Your task to perform on an android device: Show me recent news Image 0: 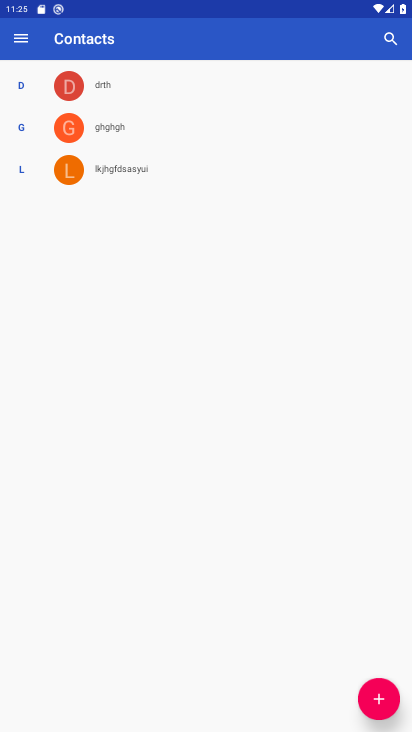
Step 0: press home button
Your task to perform on an android device: Show me recent news Image 1: 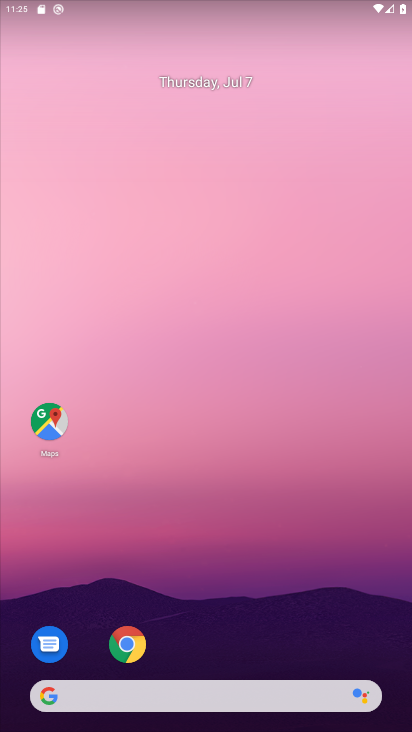
Step 1: click (105, 694)
Your task to perform on an android device: Show me recent news Image 2: 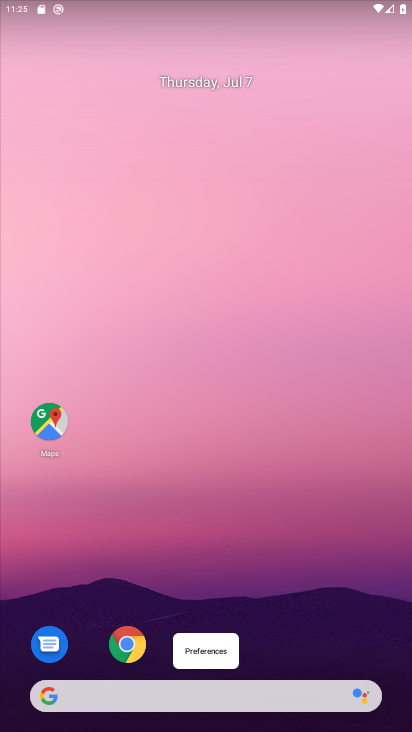
Step 2: click (89, 696)
Your task to perform on an android device: Show me recent news Image 3: 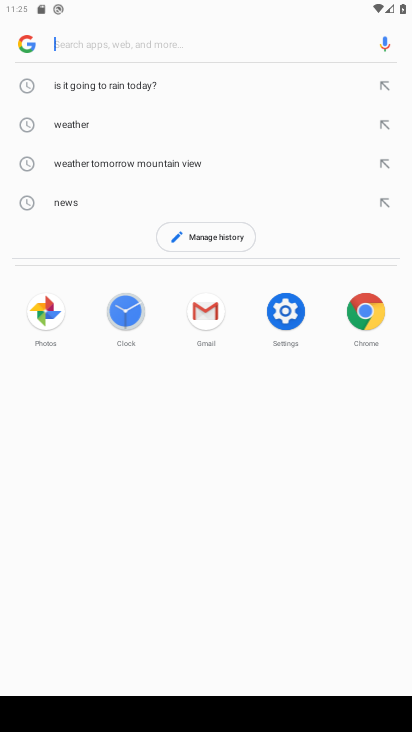
Step 3: type "Show me recent news"
Your task to perform on an android device: Show me recent news Image 4: 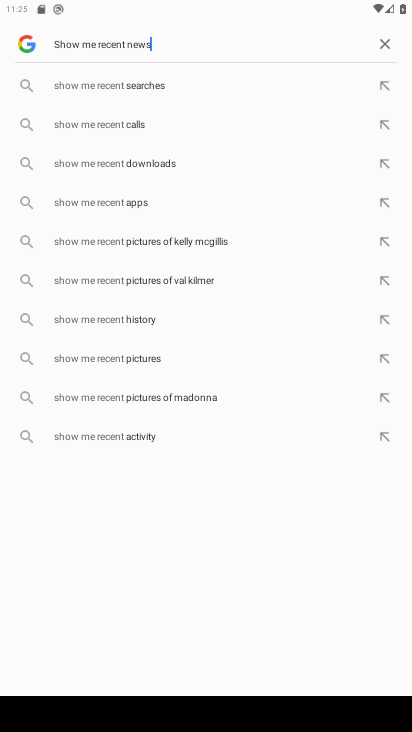
Step 4: type ""
Your task to perform on an android device: Show me recent news Image 5: 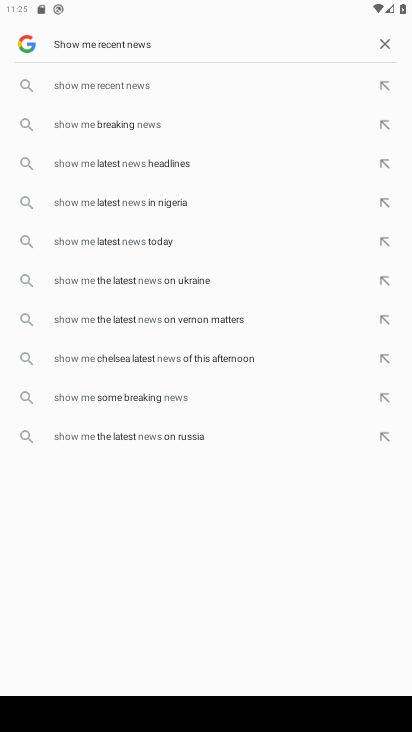
Step 5: click (93, 81)
Your task to perform on an android device: Show me recent news Image 6: 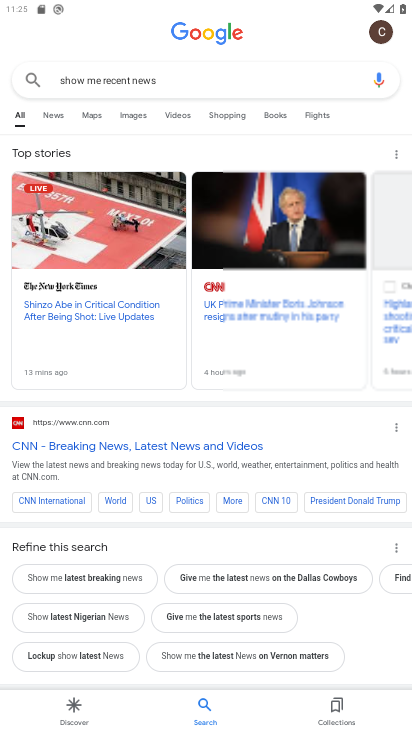
Step 6: task complete